Your task to perform on an android device: change keyboard looks Image 0: 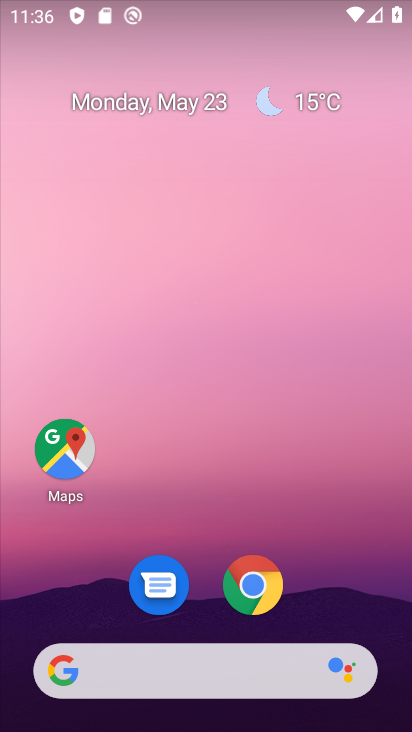
Step 0: drag from (222, 509) to (252, 10)
Your task to perform on an android device: change keyboard looks Image 1: 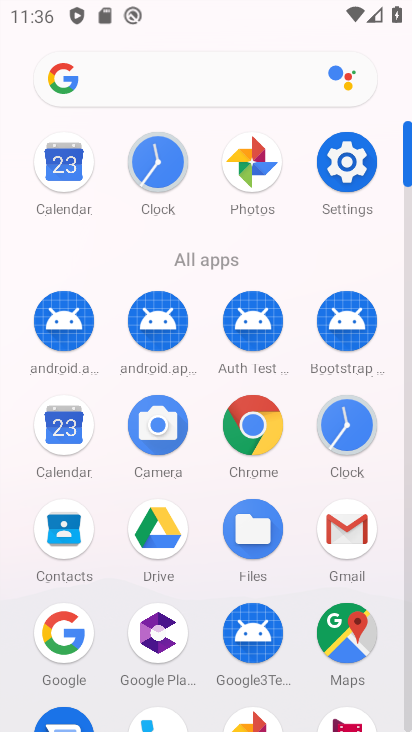
Step 1: click (350, 157)
Your task to perform on an android device: change keyboard looks Image 2: 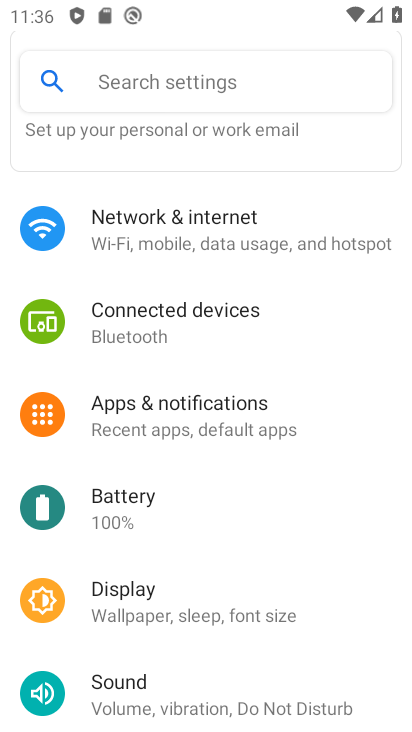
Step 2: drag from (225, 639) to (243, 76)
Your task to perform on an android device: change keyboard looks Image 3: 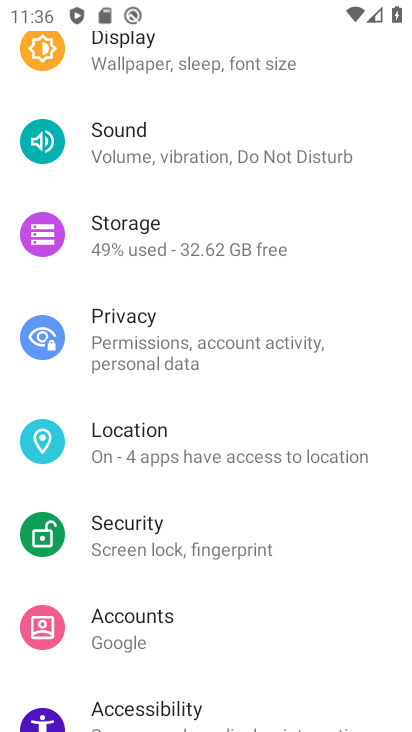
Step 3: drag from (216, 600) to (258, 50)
Your task to perform on an android device: change keyboard looks Image 4: 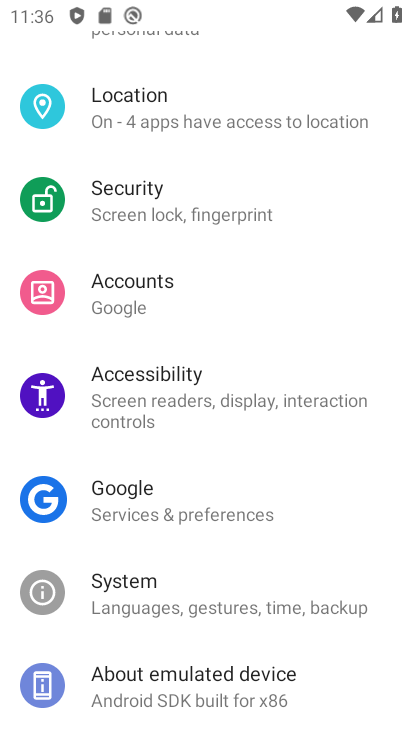
Step 4: click (227, 595)
Your task to perform on an android device: change keyboard looks Image 5: 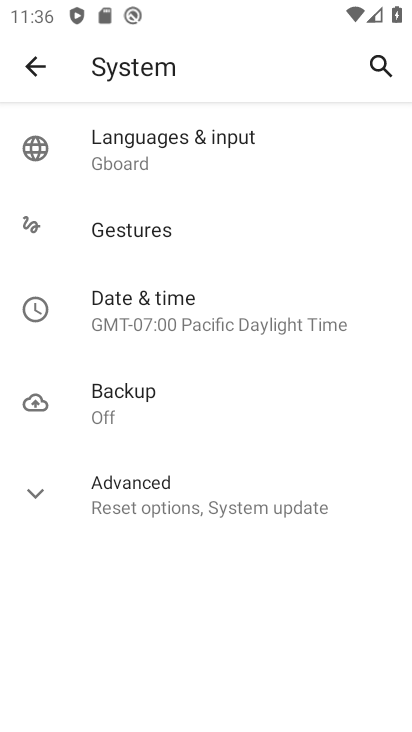
Step 5: click (186, 147)
Your task to perform on an android device: change keyboard looks Image 6: 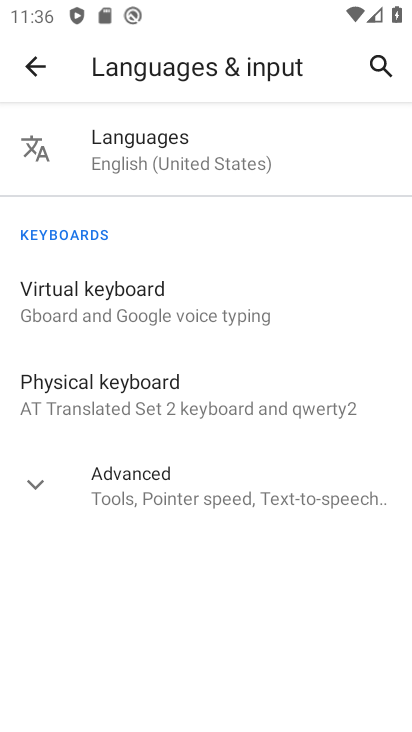
Step 6: click (147, 306)
Your task to perform on an android device: change keyboard looks Image 7: 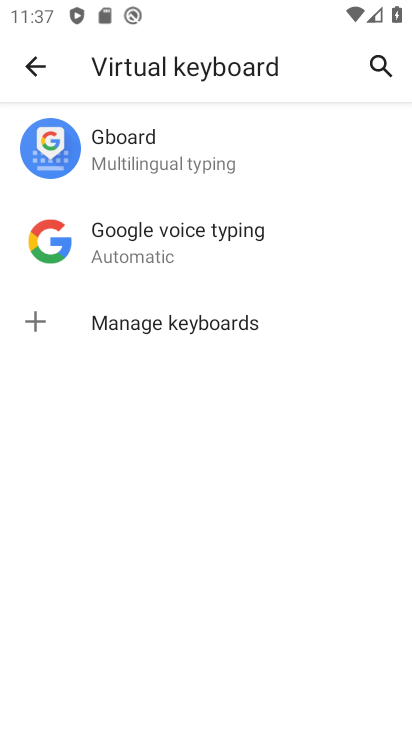
Step 7: click (156, 158)
Your task to perform on an android device: change keyboard looks Image 8: 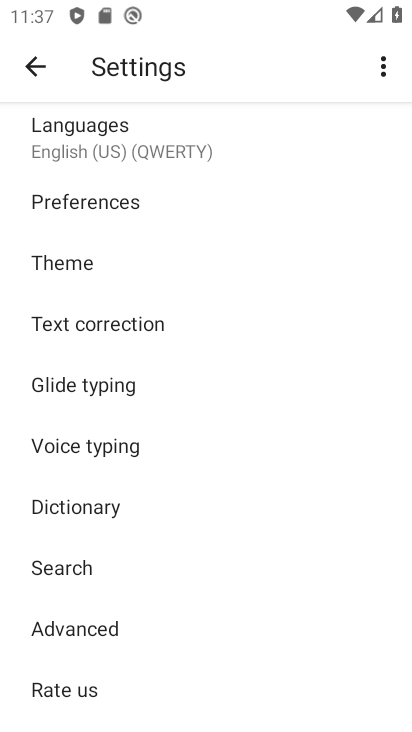
Step 8: click (127, 272)
Your task to perform on an android device: change keyboard looks Image 9: 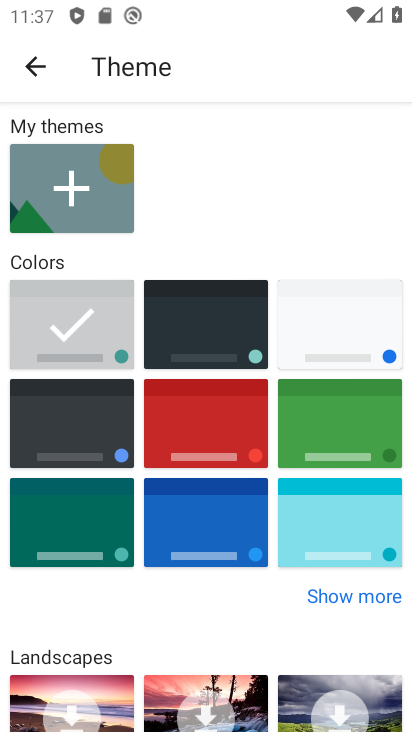
Step 9: click (222, 530)
Your task to perform on an android device: change keyboard looks Image 10: 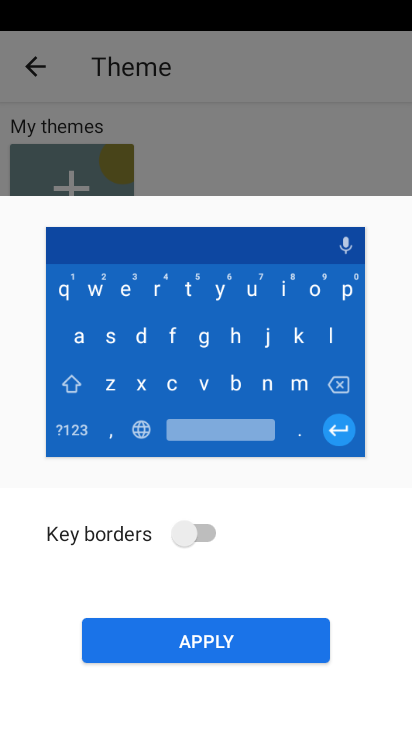
Step 10: click (192, 530)
Your task to perform on an android device: change keyboard looks Image 11: 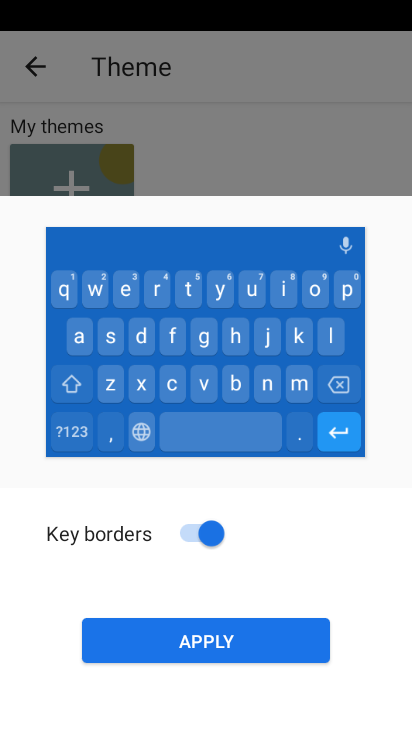
Step 11: click (182, 631)
Your task to perform on an android device: change keyboard looks Image 12: 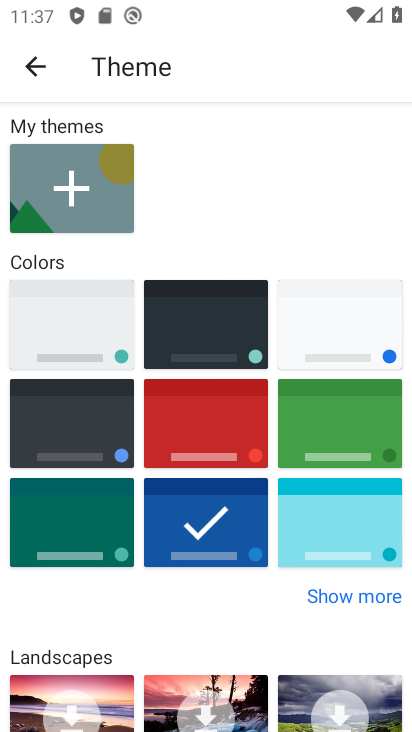
Step 12: task complete